Your task to perform on an android device: turn on location history Image 0: 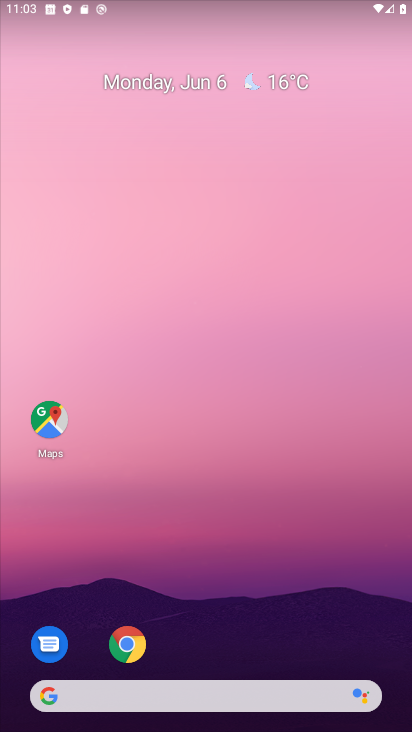
Step 0: drag from (298, 562) to (369, 151)
Your task to perform on an android device: turn on location history Image 1: 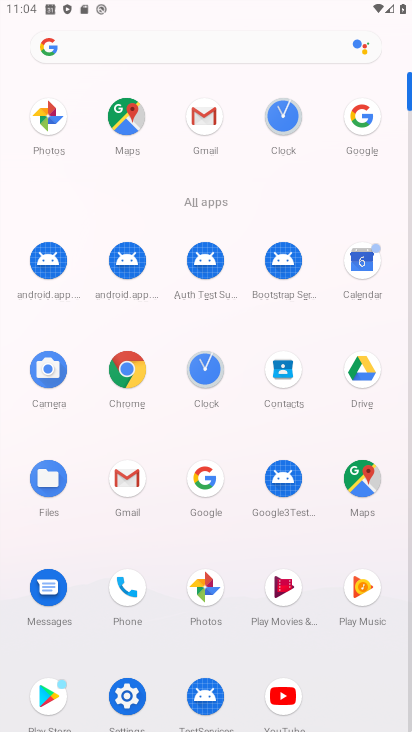
Step 1: click (124, 696)
Your task to perform on an android device: turn on location history Image 2: 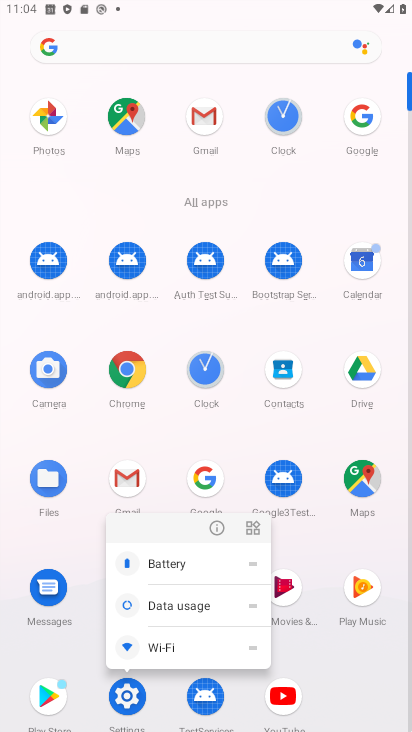
Step 2: click (120, 700)
Your task to perform on an android device: turn on location history Image 3: 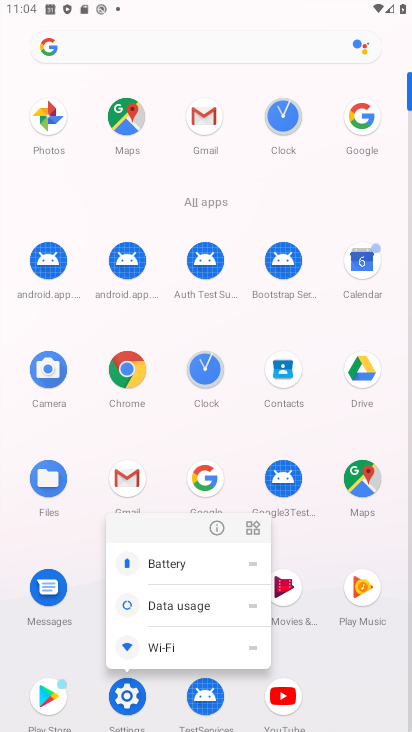
Step 3: click (131, 698)
Your task to perform on an android device: turn on location history Image 4: 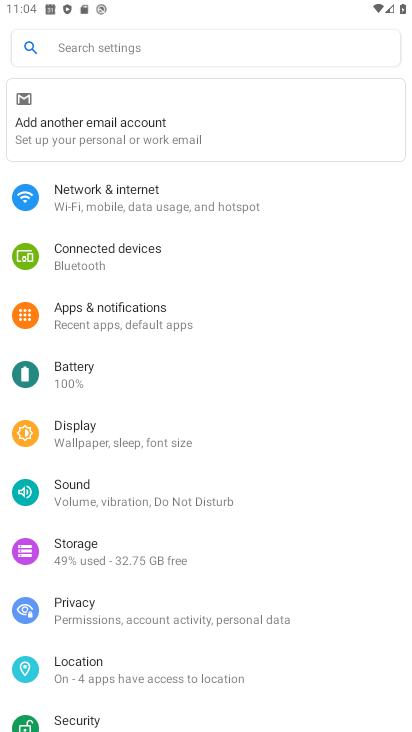
Step 4: click (142, 657)
Your task to perform on an android device: turn on location history Image 5: 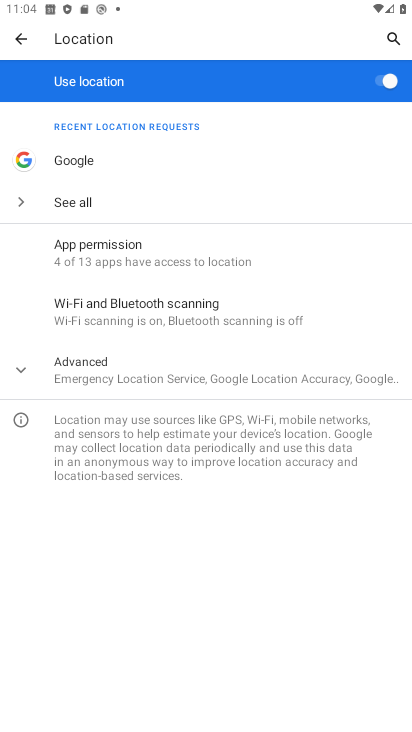
Step 5: click (161, 378)
Your task to perform on an android device: turn on location history Image 6: 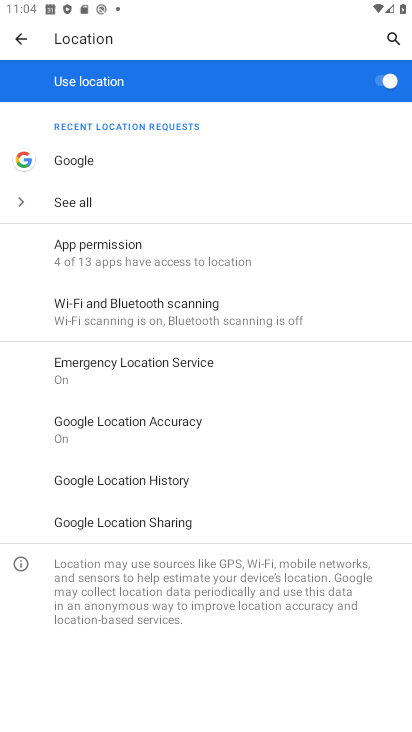
Step 6: click (189, 479)
Your task to perform on an android device: turn on location history Image 7: 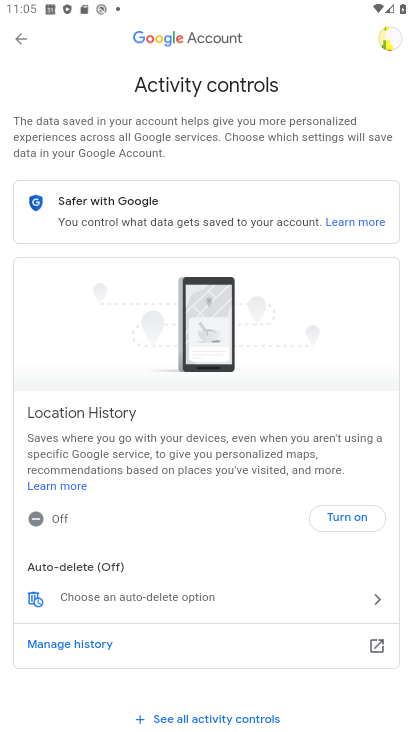
Step 7: task complete